Your task to perform on an android device: open app "DoorDash - Food Delivery" Image 0: 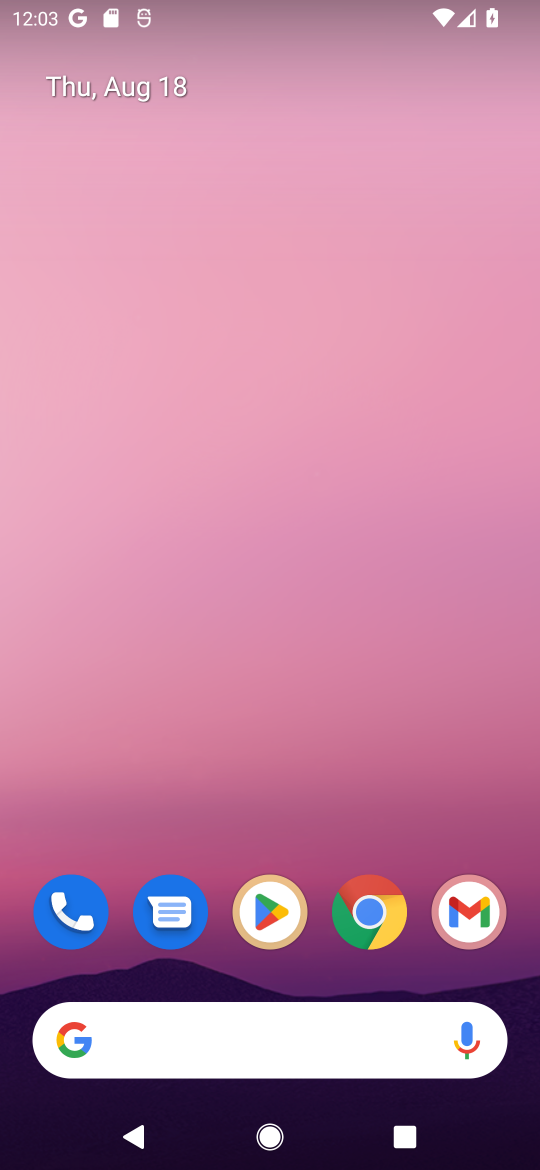
Step 0: click (274, 923)
Your task to perform on an android device: open app "DoorDash - Food Delivery" Image 1: 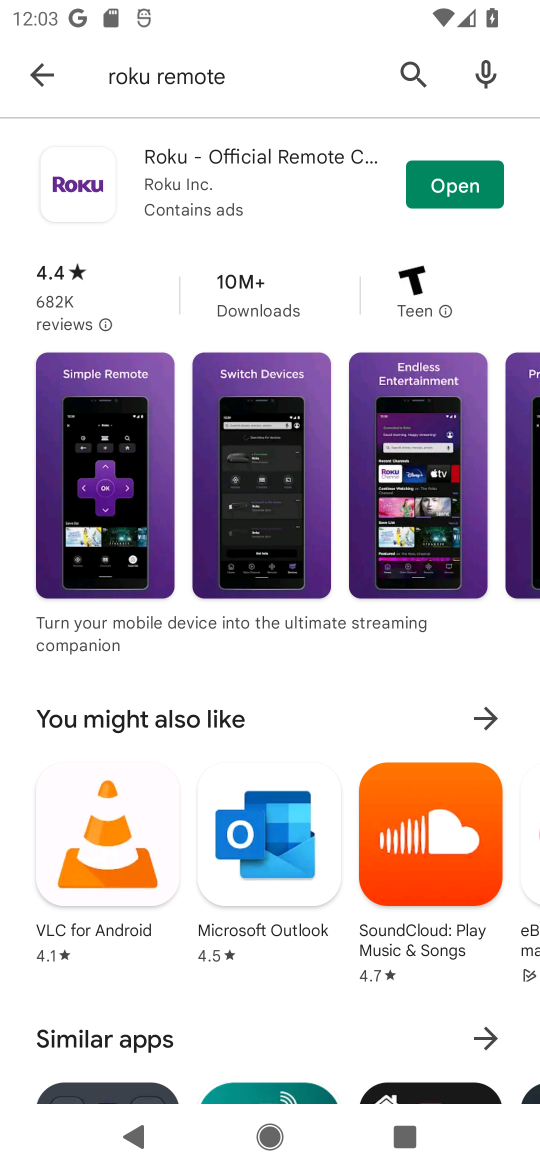
Step 1: click (422, 76)
Your task to perform on an android device: open app "DoorDash - Food Delivery" Image 2: 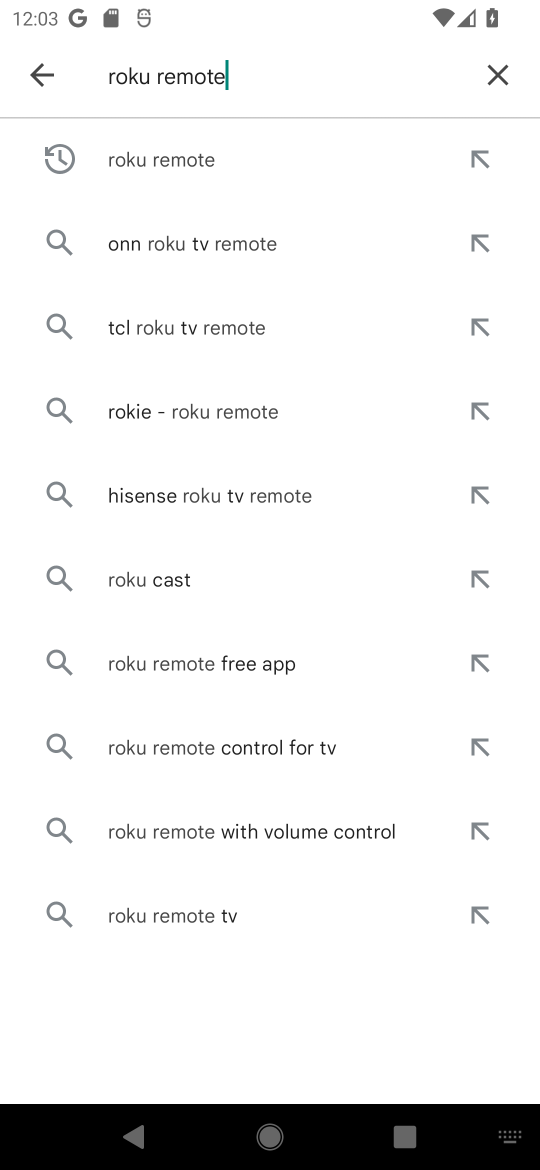
Step 2: click (497, 68)
Your task to perform on an android device: open app "DoorDash - Food Delivery" Image 3: 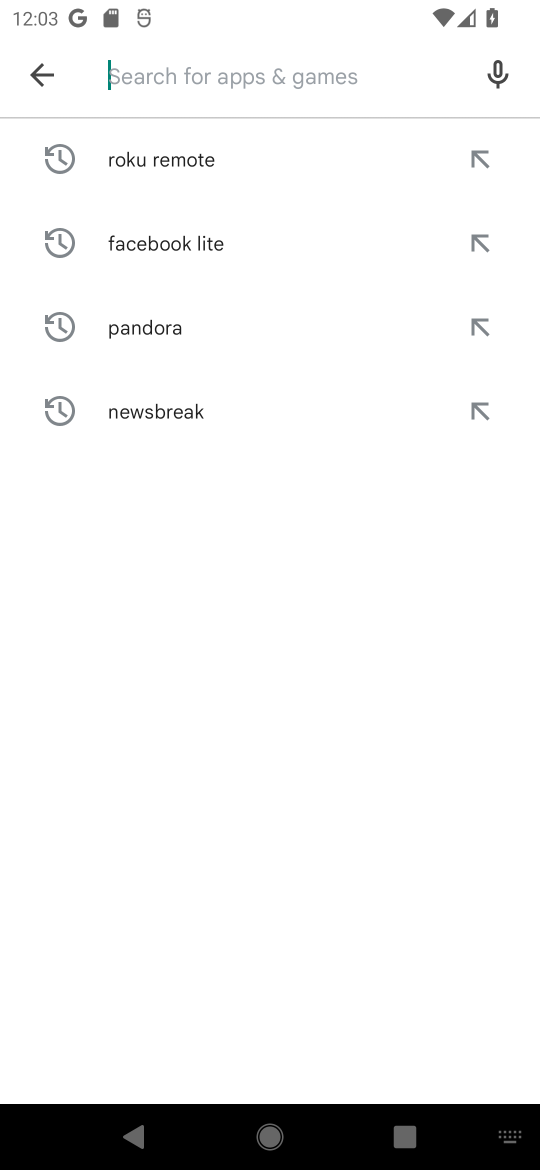
Step 3: click (161, 73)
Your task to perform on an android device: open app "DoorDash - Food Delivery" Image 4: 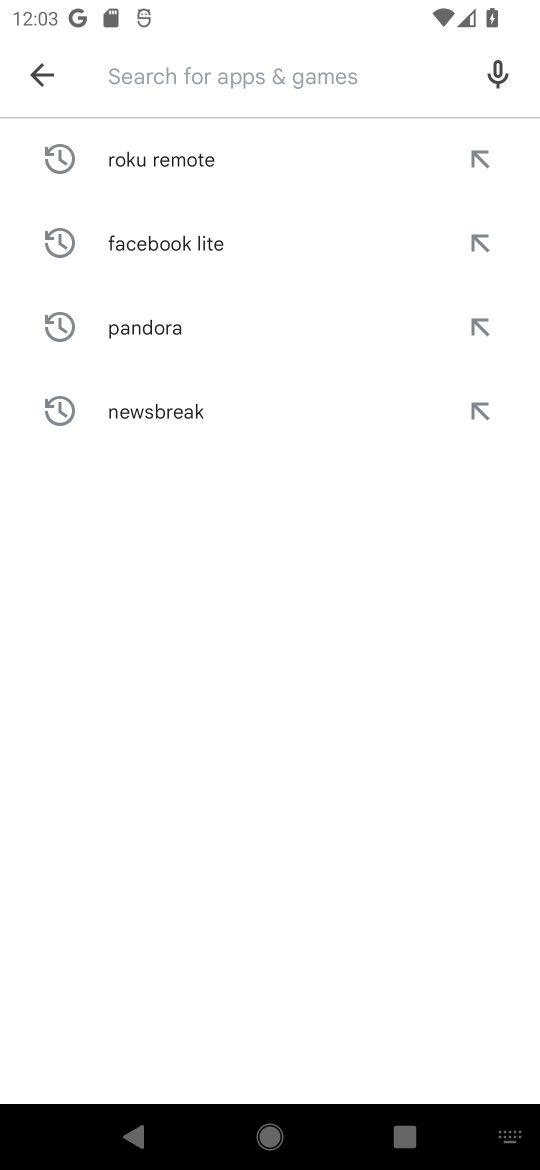
Step 4: type "DoorDash"
Your task to perform on an android device: open app "DoorDash - Food Delivery" Image 5: 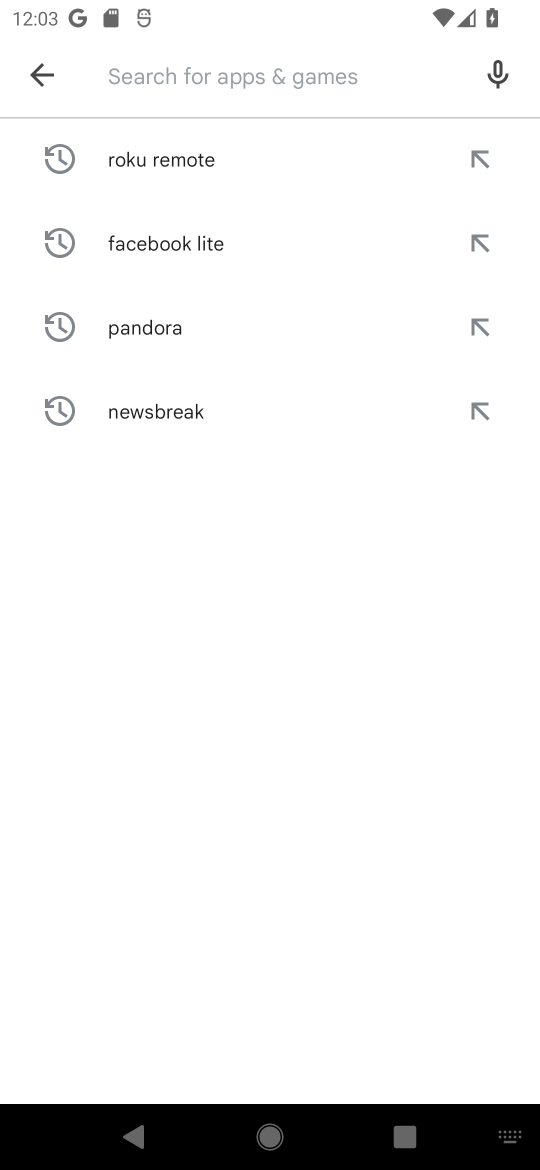
Step 5: click (335, 639)
Your task to perform on an android device: open app "DoorDash - Food Delivery" Image 6: 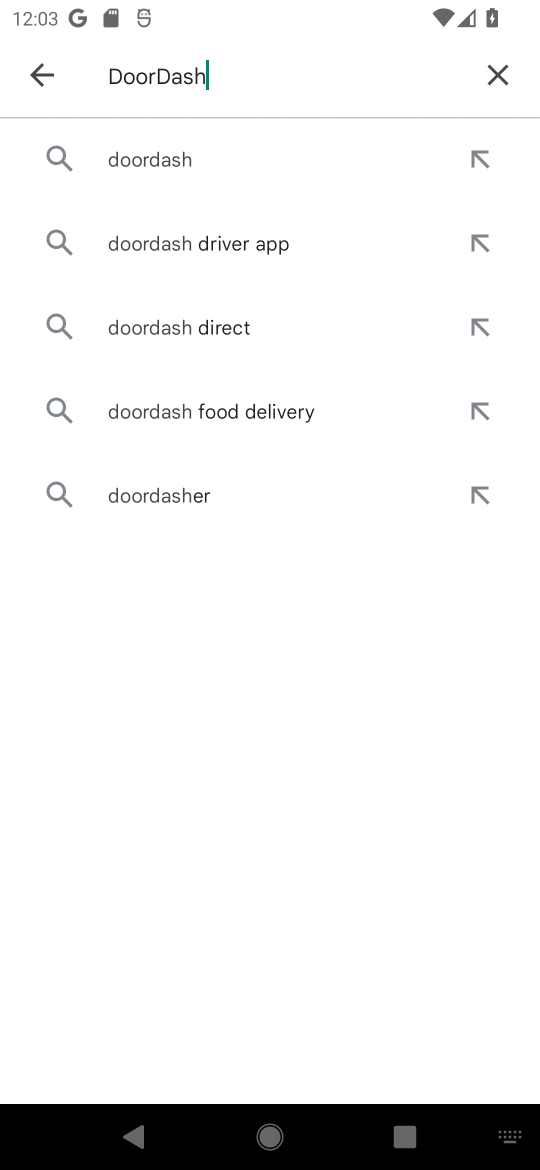
Step 6: click (187, 159)
Your task to perform on an android device: open app "DoorDash - Food Delivery" Image 7: 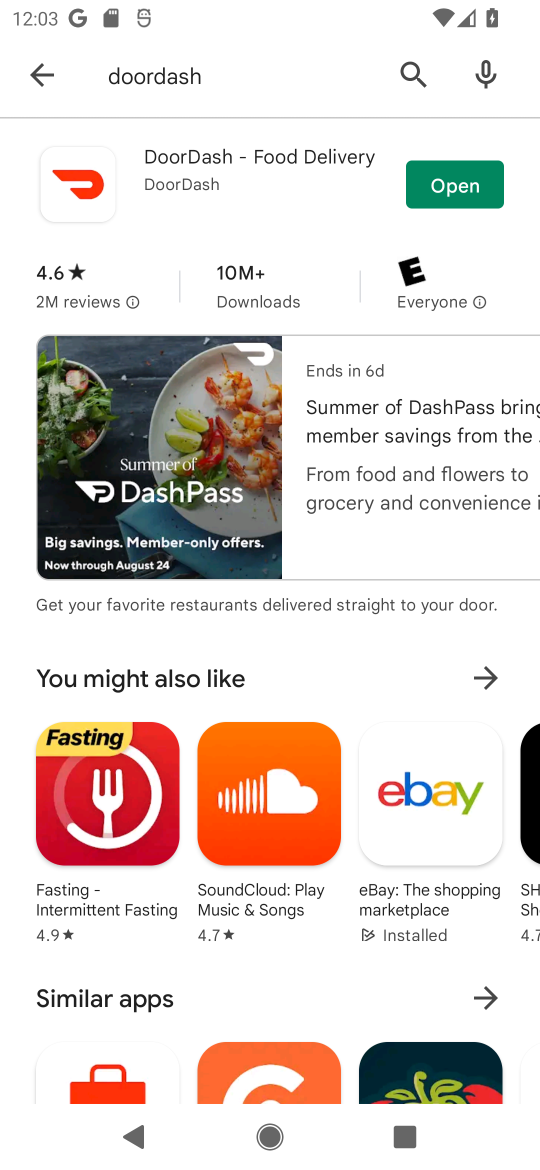
Step 7: click (449, 185)
Your task to perform on an android device: open app "DoorDash - Food Delivery" Image 8: 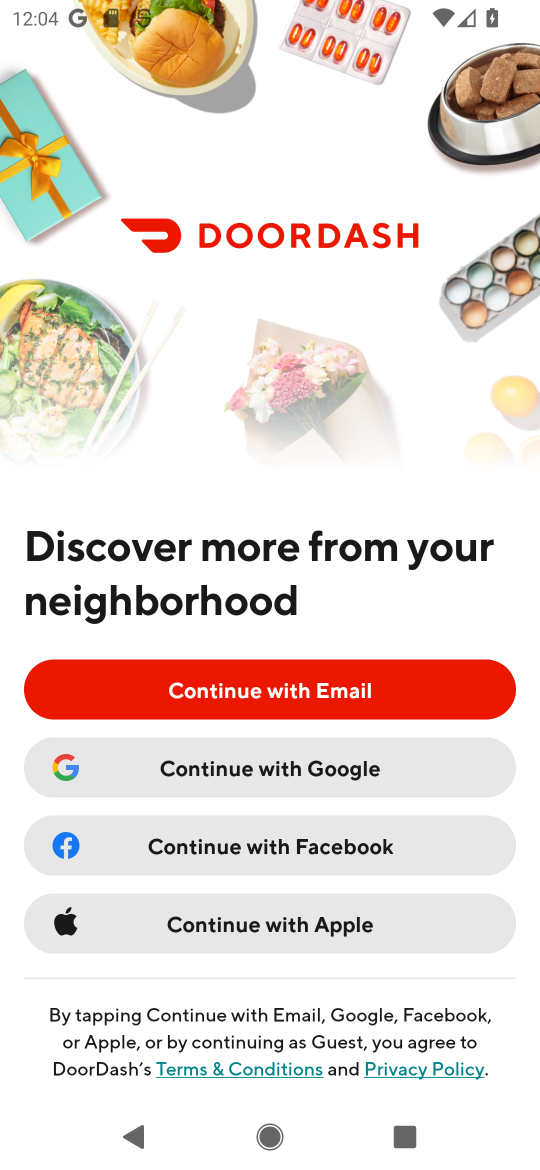
Step 8: task complete